Your task to perform on an android device: What's the weather going to be this weekend? Image 0: 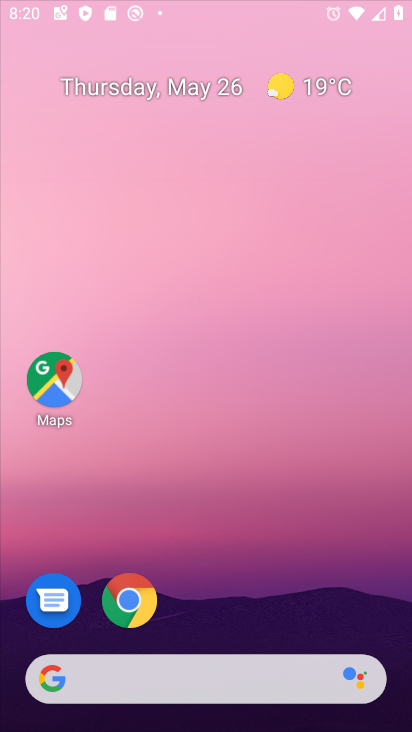
Step 0: press home button
Your task to perform on an android device: What's the weather going to be this weekend? Image 1: 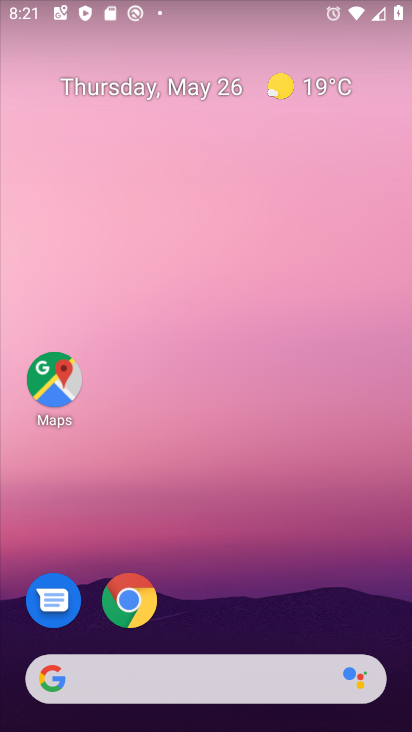
Step 1: click (48, 680)
Your task to perform on an android device: What's the weather going to be this weekend? Image 2: 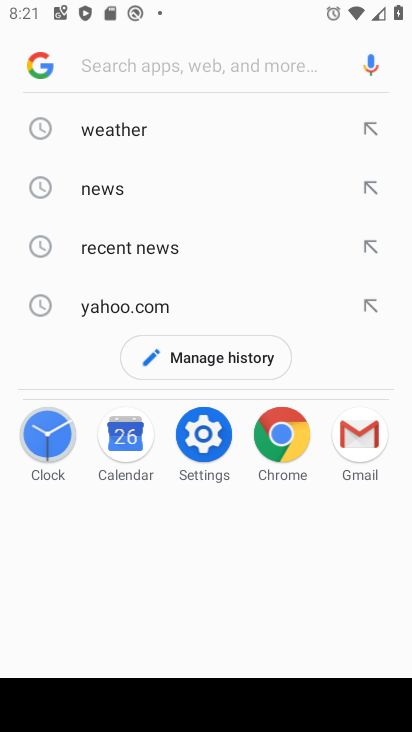
Step 2: type "weather going to be this weekend?"
Your task to perform on an android device: What's the weather going to be this weekend? Image 3: 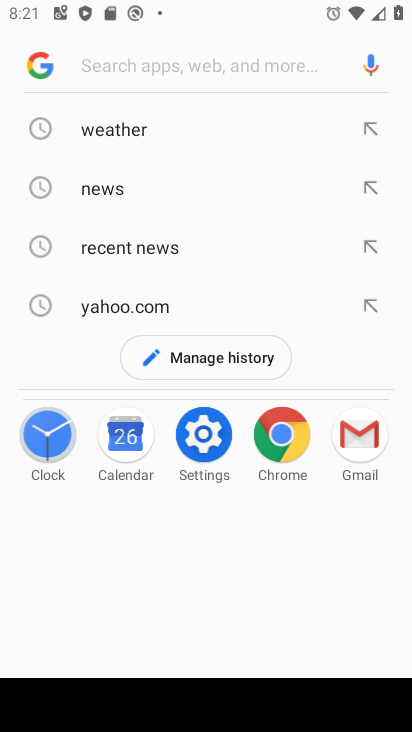
Step 3: click (195, 71)
Your task to perform on an android device: What's the weather going to be this weekend? Image 4: 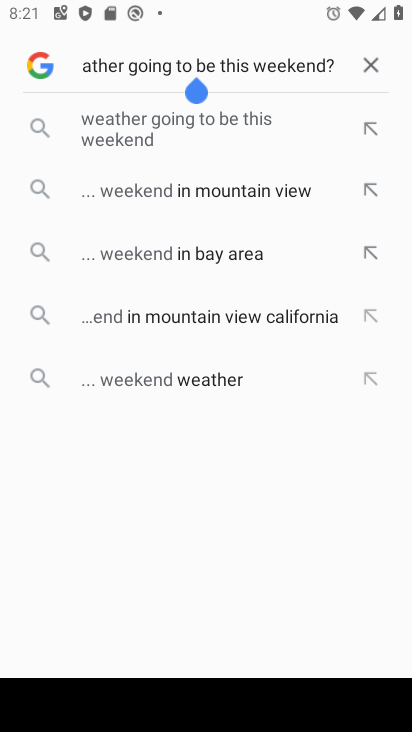
Step 4: click (142, 127)
Your task to perform on an android device: What's the weather going to be this weekend? Image 5: 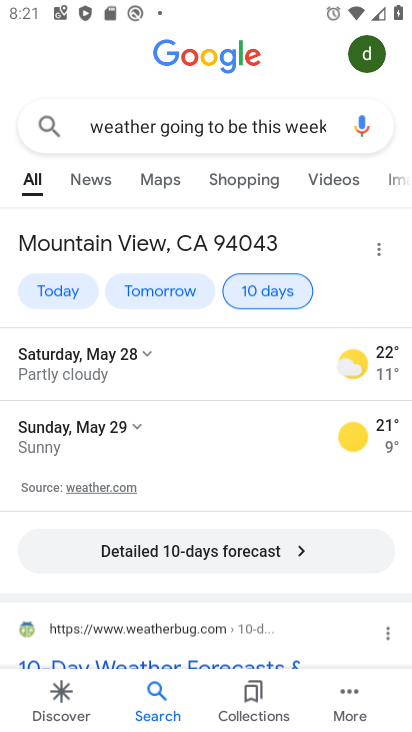
Step 5: task complete